Your task to perform on an android device: Go to calendar. Show me events next week Image 0: 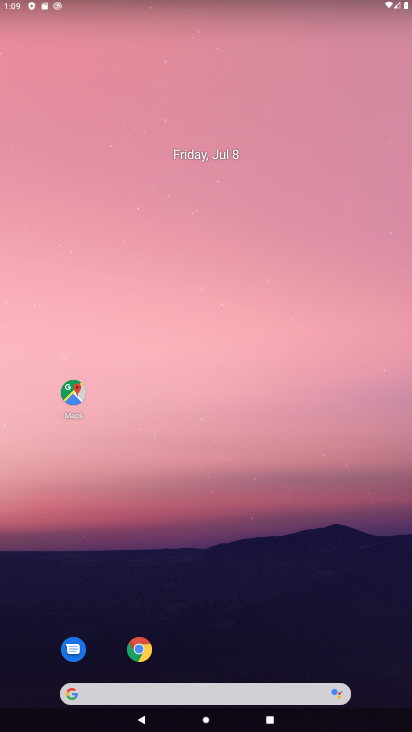
Step 0: drag from (313, 526) to (245, 208)
Your task to perform on an android device: Go to calendar. Show me events next week Image 1: 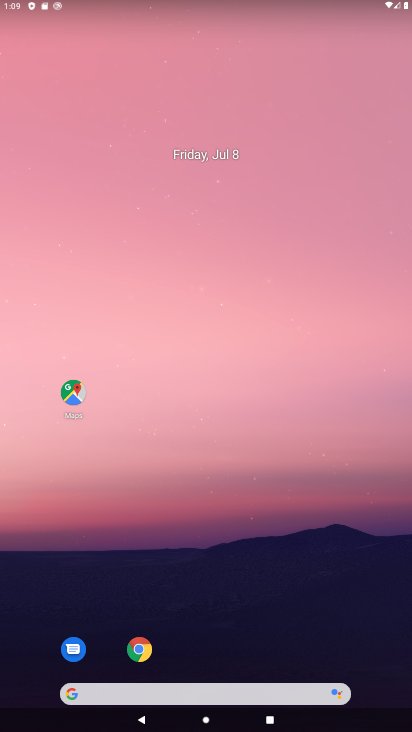
Step 1: drag from (244, 588) to (166, 77)
Your task to perform on an android device: Go to calendar. Show me events next week Image 2: 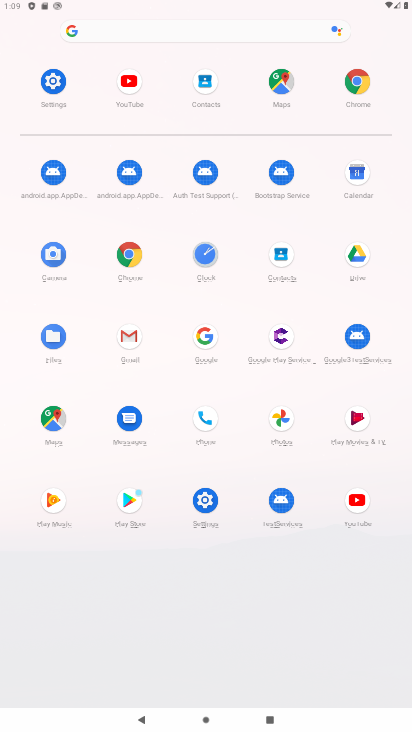
Step 2: click (356, 167)
Your task to perform on an android device: Go to calendar. Show me events next week Image 3: 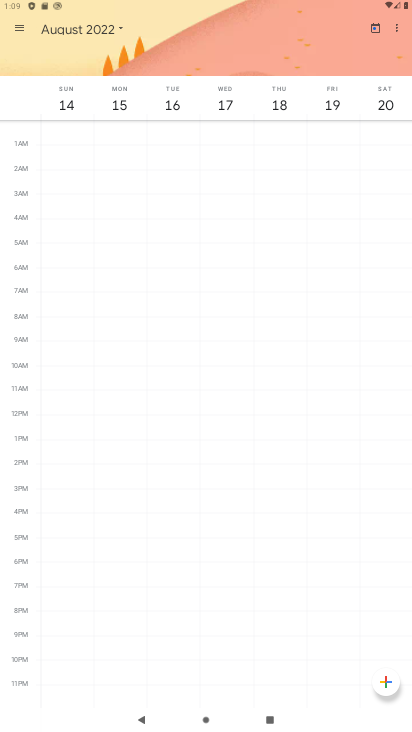
Step 3: click (78, 30)
Your task to perform on an android device: Go to calendar. Show me events next week Image 4: 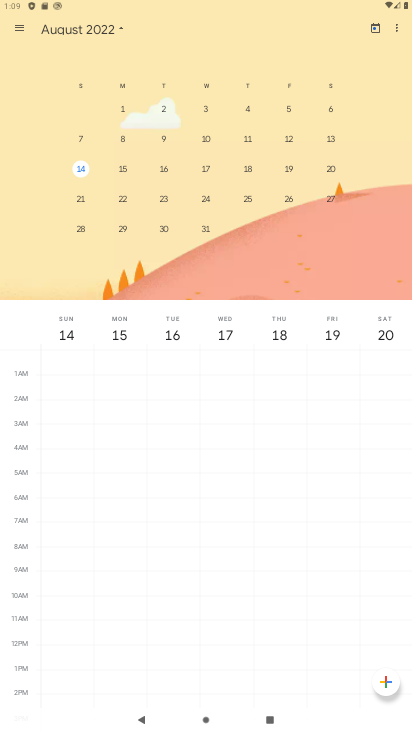
Step 4: drag from (55, 199) to (350, 194)
Your task to perform on an android device: Go to calendar. Show me events next week Image 5: 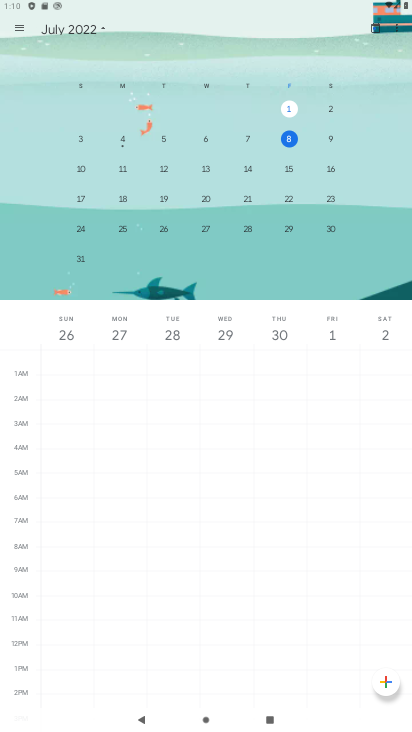
Step 5: click (121, 166)
Your task to perform on an android device: Go to calendar. Show me events next week Image 6: 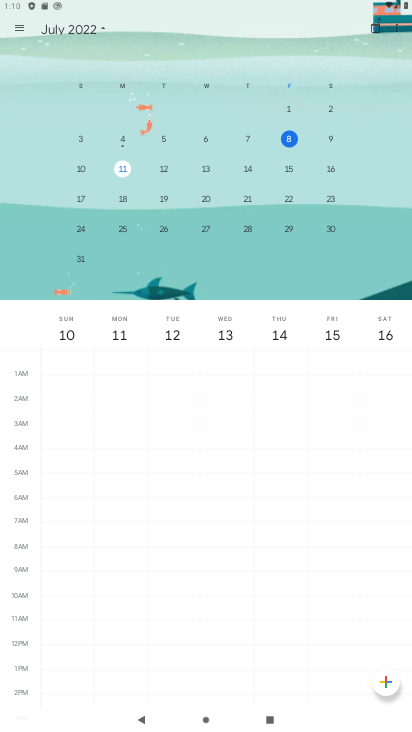
Step 6: task complete